Your task to perform on an android device: visit the assistant section in the google photos Image 0: 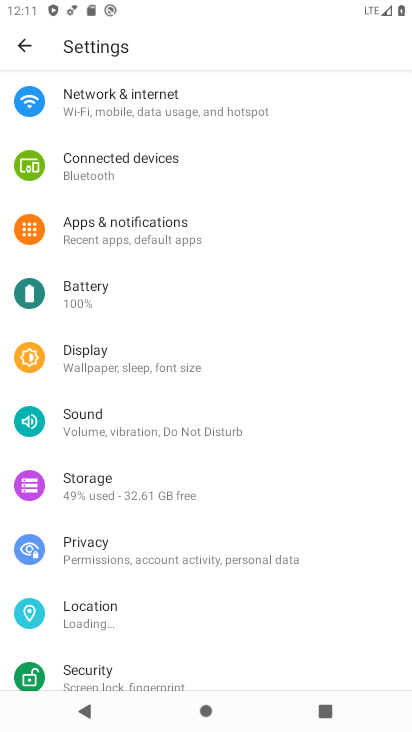
Step 0: press home button
Your task to perform on an android device: visit the assistant section in the google photos Image 1: 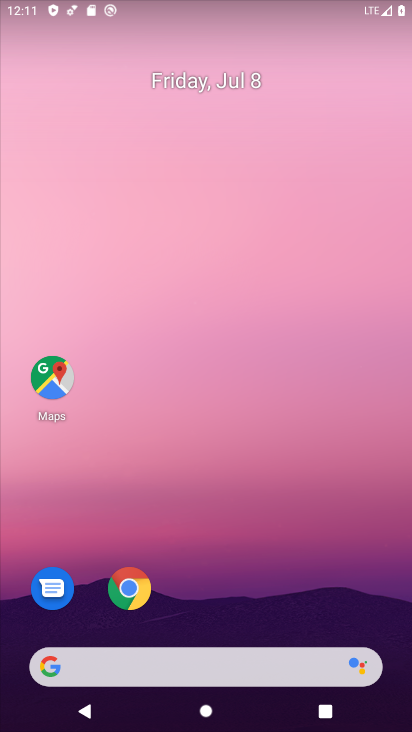
Step 1: drag from (221, 641) to (245, 15)
Your task to perform on an android device: visit the assistant section in the google photos Image 2: 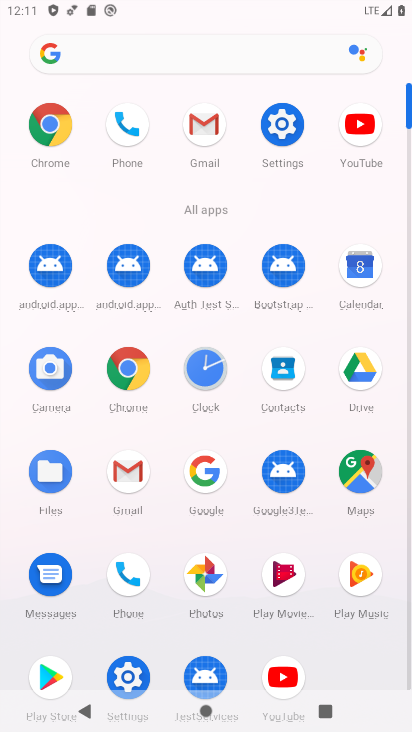
Step 2: click (204, 564)
Your task to perform on an android device: visit the assistant section in the google photos Image 3: 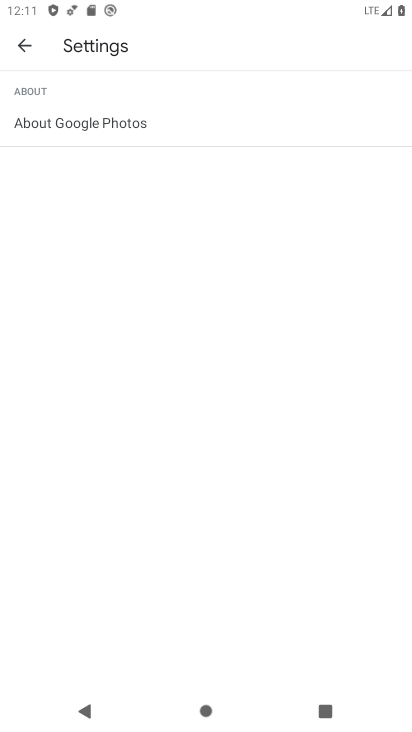
Step 3: click (23, 41)
Your task to perform on an android device: visit the assistant section in the google photos Image 4: 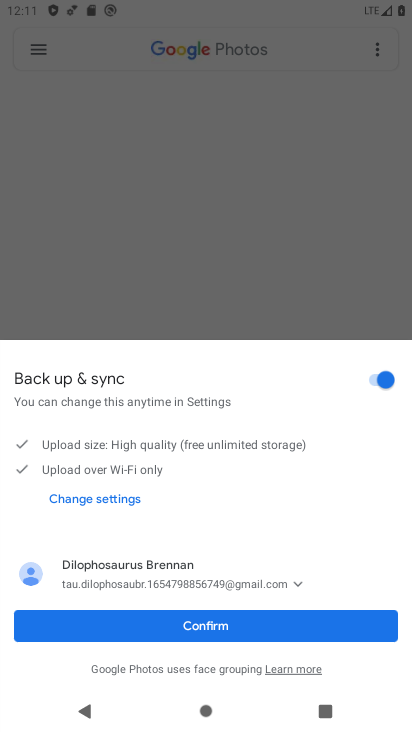
Step 4: click (207, 627)
Your task to perform on an android device: visit the assistant section in the google photos Image 5: 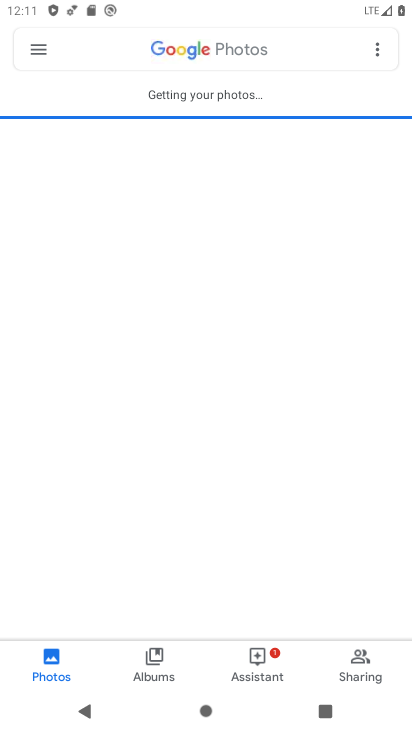
Step 5: click (212, 40)
Your task to perform on an android device: visit the assistant section in the google photos Image 6: 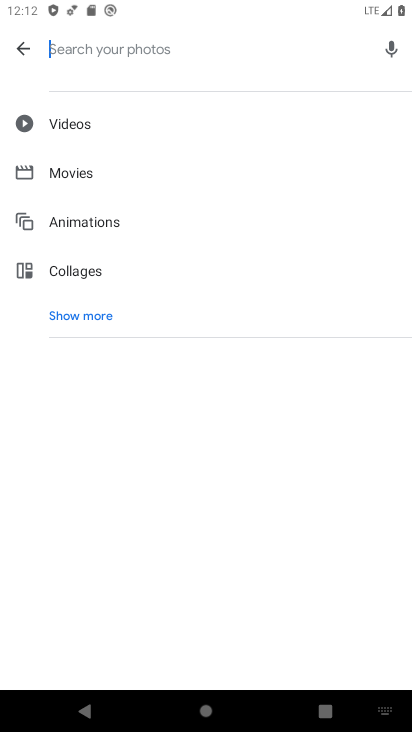
Step 6: type "assistant"
Your task to perform on an android device: visit the assistant section in the google photos Image 7: 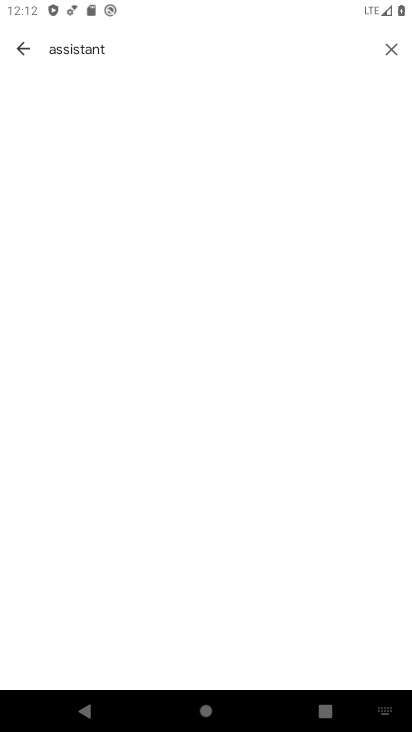
Step 7: task complete